Your task to perform on an android device: Go to Maps Image 0: 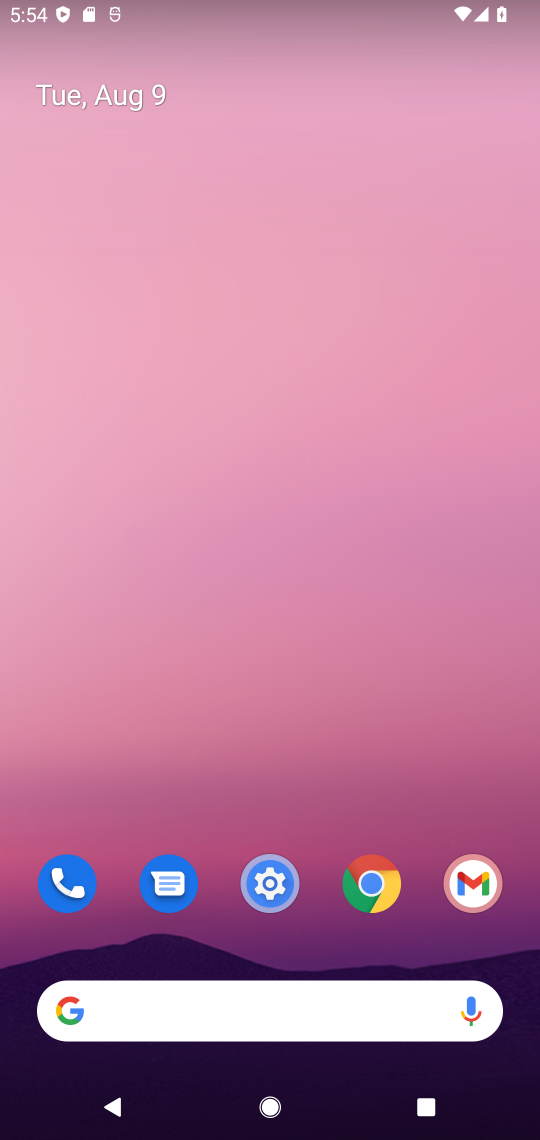
Step 0: drag from (287, 785) to (304, 127)
Your task to perform on an android device: Go to Maps Image 1: 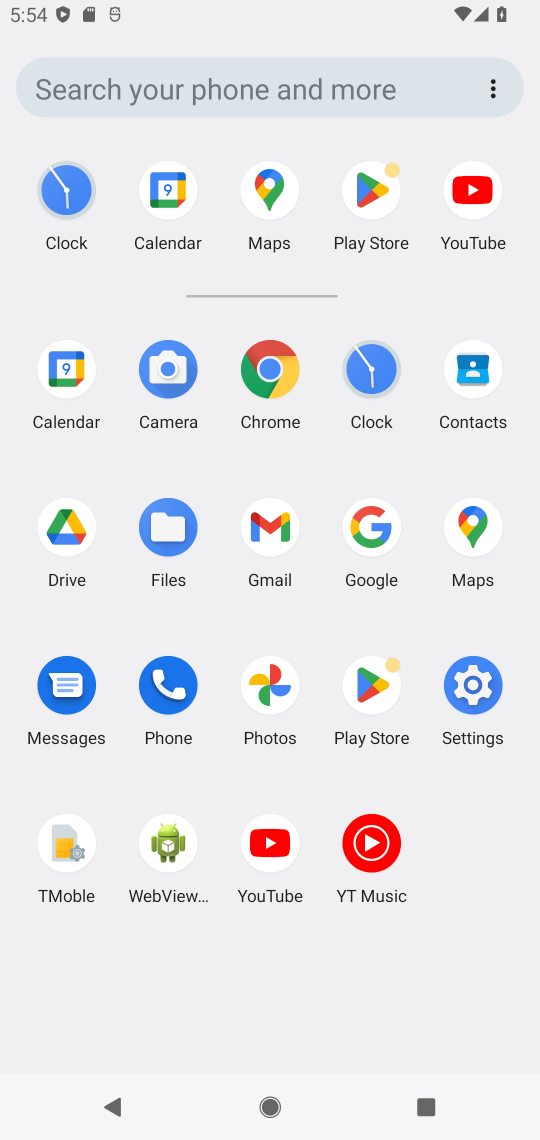
Step 1: click (471, 546)
Your task to perform on an android device: Go to Maps Image 2: 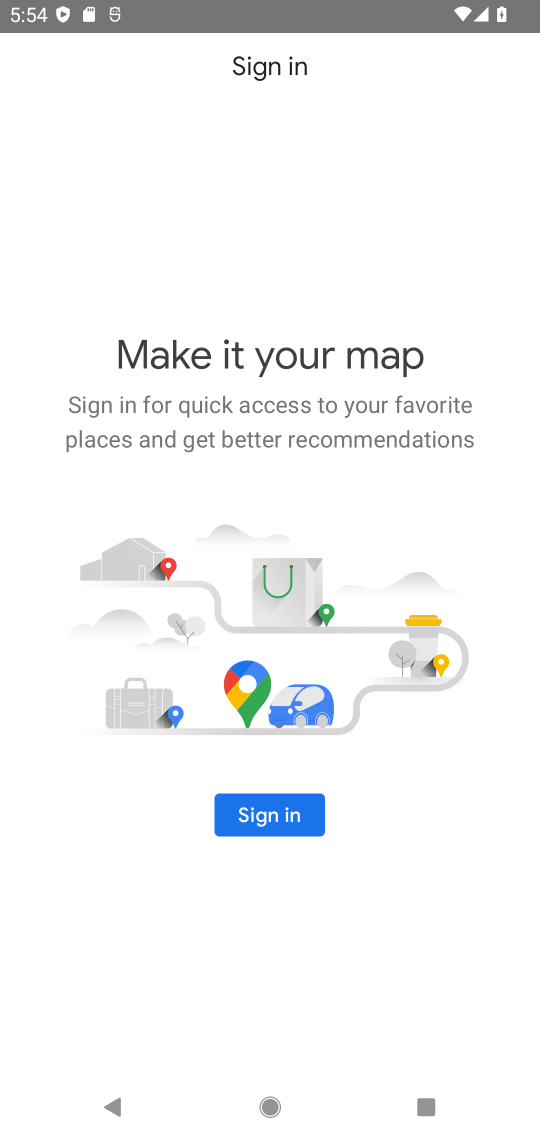
Step 2: click (255, 821)
Your task to perform on an android device: Go to Maps Image 3: 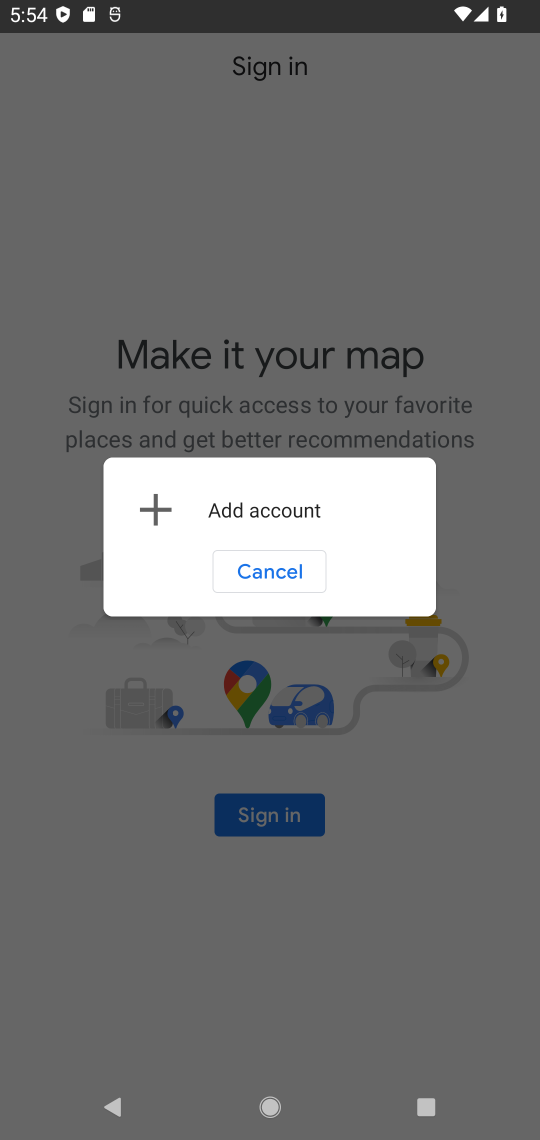
Step 3: click (247, 574)
Your task to perform on an android device: Go to Maps Image 4: 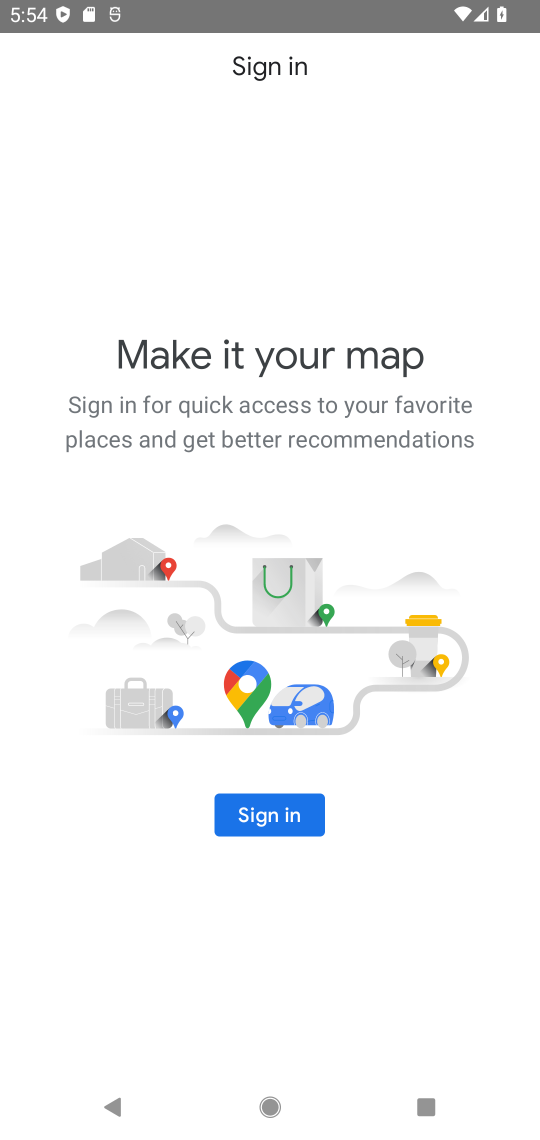
Step 4: task complete